Your task to perform on an android device: What's the weather today? Image 0: 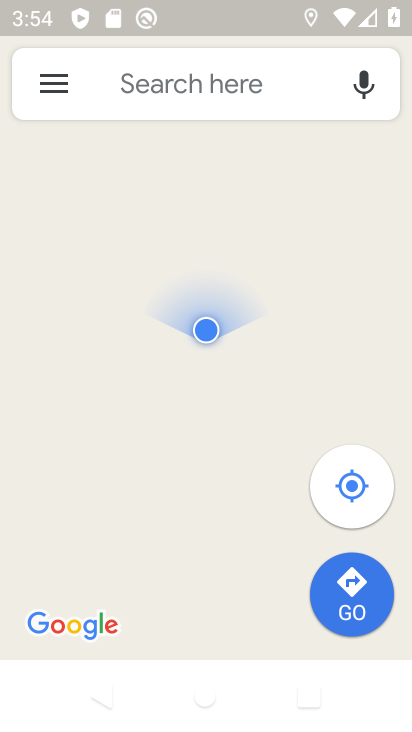
Step 0: press back button
Your task to perform on an android device: What's the weather today? Image 1: 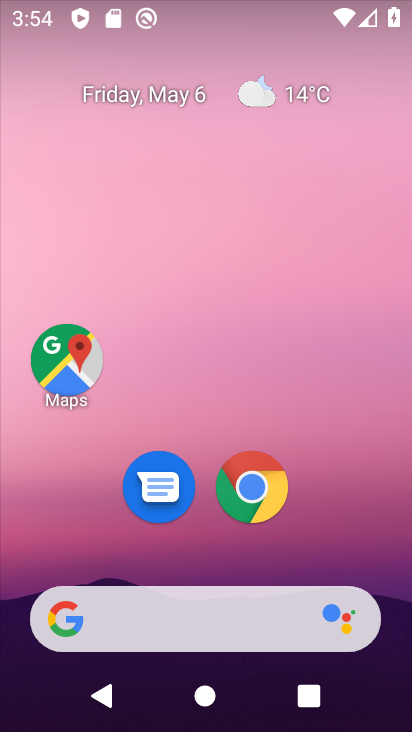
Step 1: click (2, 284)
Your task to perform on an android device: What's the weather today? Image 2: 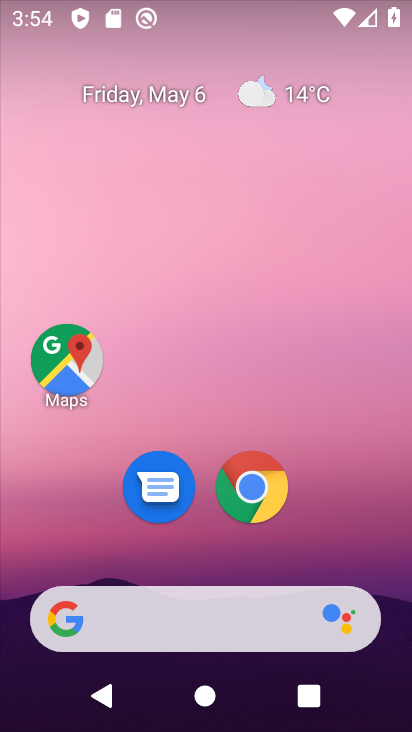
Step 2: click (319, 88)
Your task to perform on an android device: What's the weather today? Image 3: 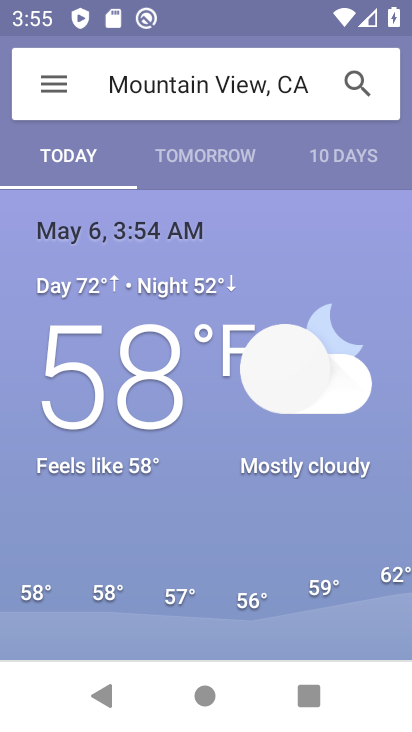
Step 3: task complete